Your task to perform on an android device: open app "Speedtest by Ookla" (install if not already installed) and go to login screen Image 0: 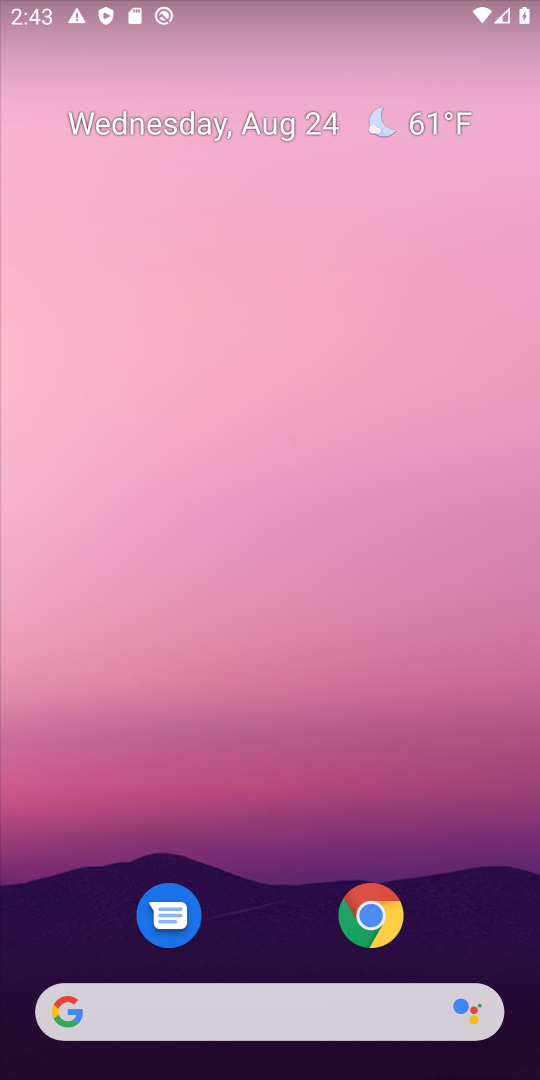
Step 0: drag from (254, 875) to (237, 387)
Your task to perform on an android device: open app "Speedtest by Ookla" (install if not already installed) and go to login screen Image 1: 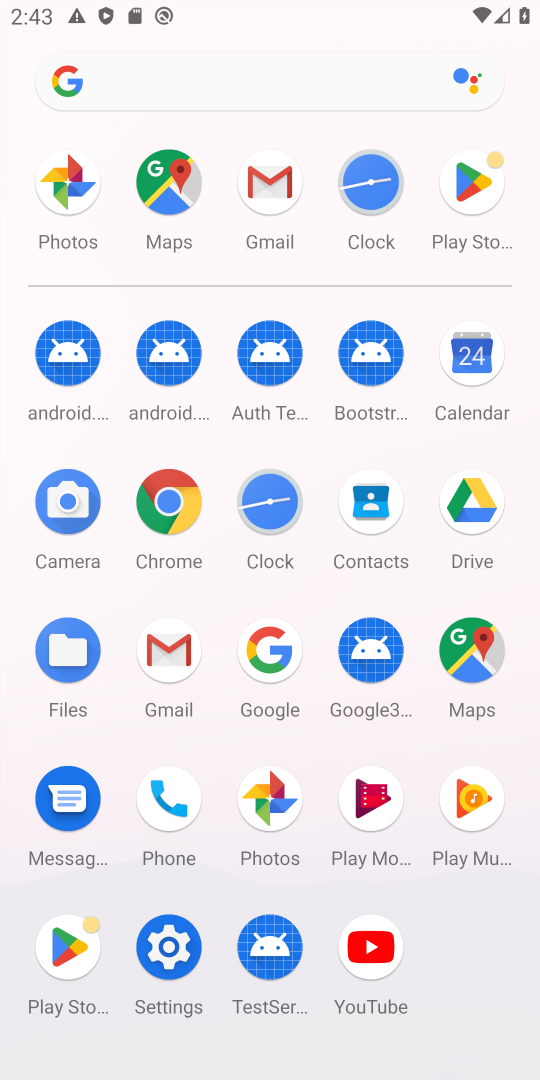
Step 1: click (467, 204)
Your task to perform on an android device: open app "Speedtest by Ookla" (install if not already installed) and go to login screen Image 2: 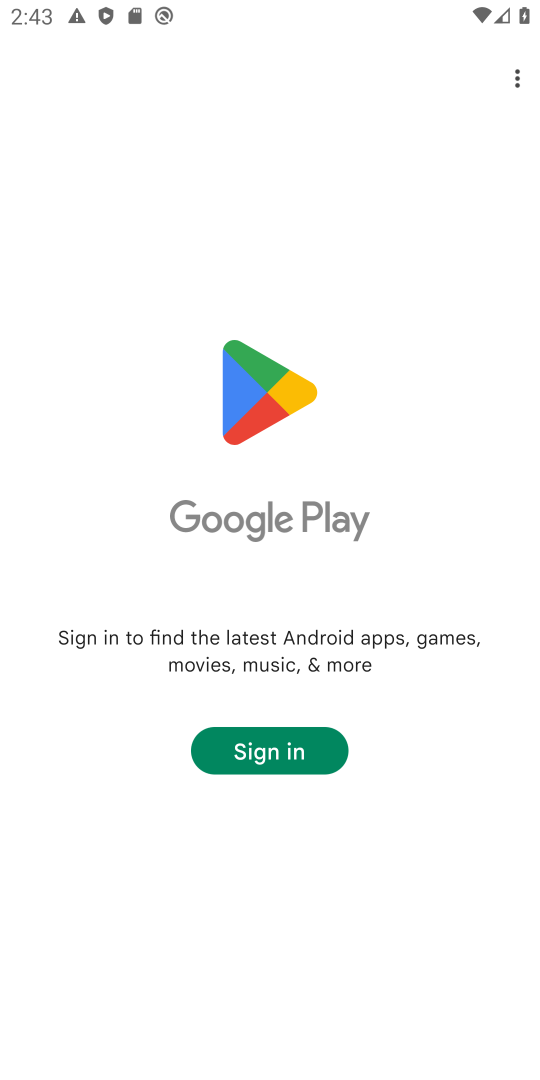
Step 2: task complete